Your task to perform on an android device: Open location settings Image 0: 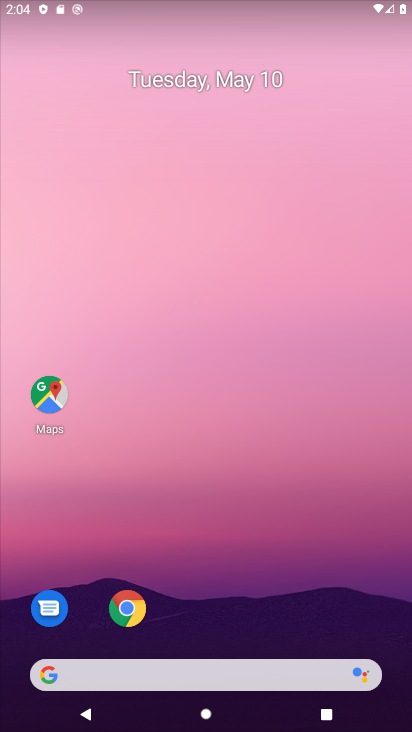
Step 0: drag from (254, 603) to (160, 199)
Your task to perform on an android device: Open location settings Image 1: 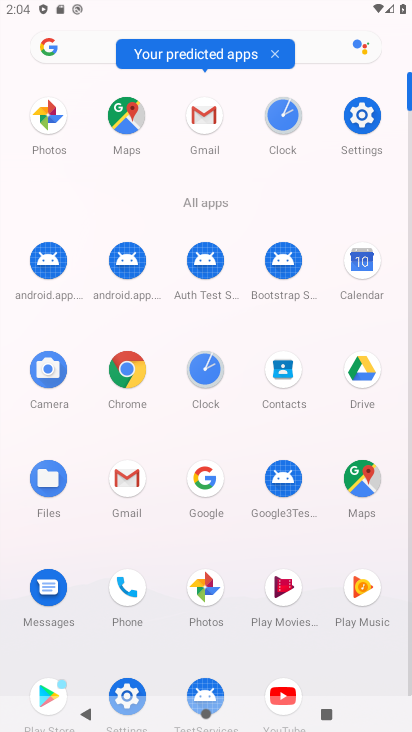
Step 1: click (359, 110)
Your task to perform on an android device: Open location settings Image 2: 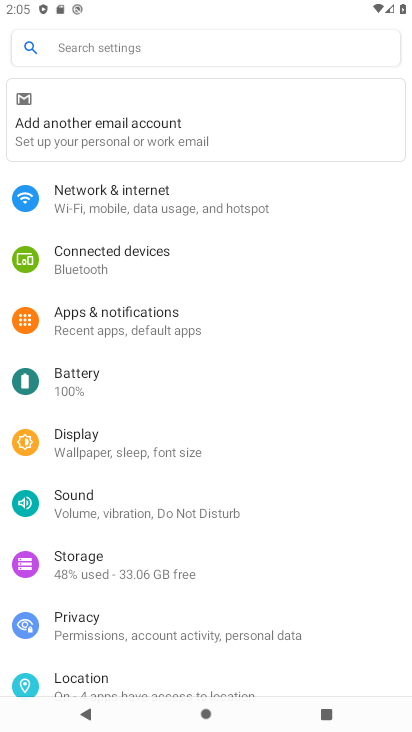
Step 2: click (213, 309)
Your task to perform on an android device: Open location settings Image 3: 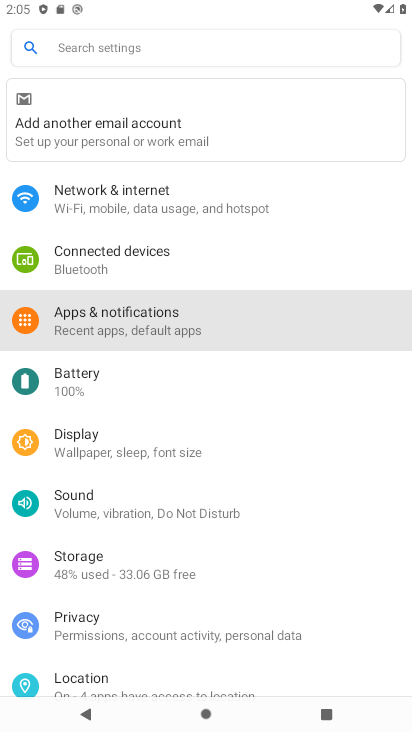
Step 3: task complete